Your task to perform on an android device: toggle priority inbox in the gmail app Image 0: 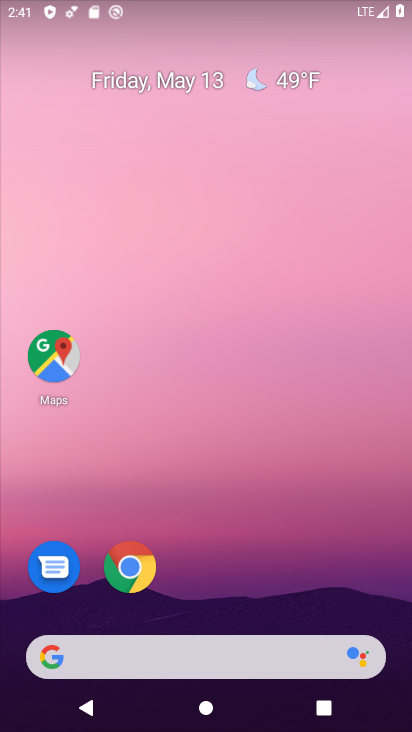
Step 0: drag from (193, 618) to (178, 45)
Your task to perform on an android device: toggle priority inbox in the gmail app Image 1: 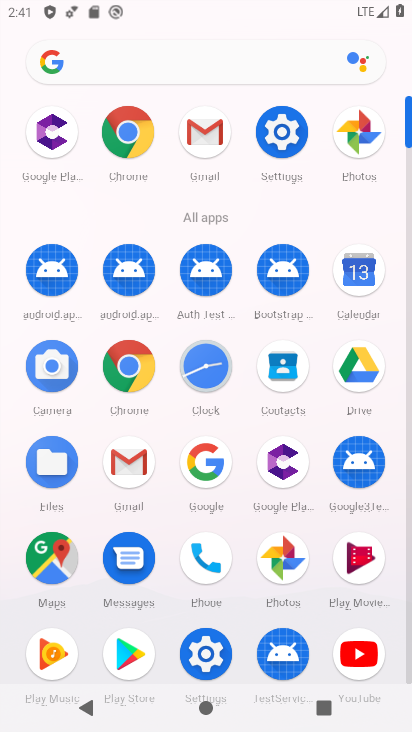
Step 1: click (140, 448)
Your task to perform on an android device: toggle priority inbox in the gmail app Image 2: 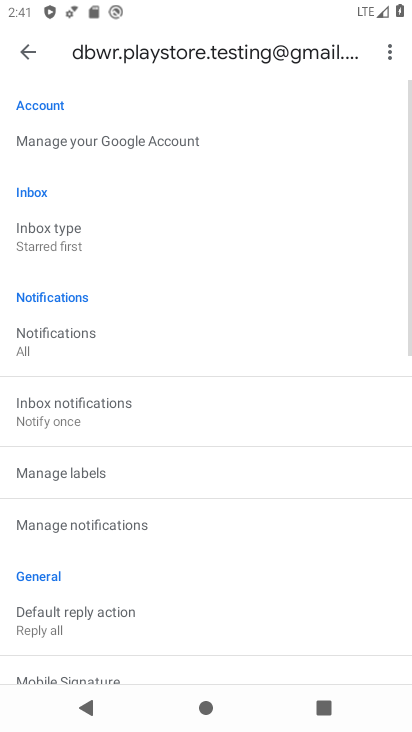
Step 2: click (68, 240)
Your task to perform on an android device: toggle priority inbox in the gmail app Image 3: 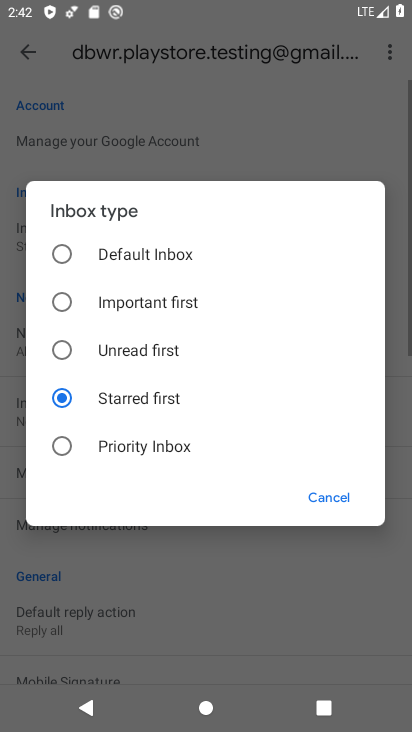
Step 3: click (122, 437)
Your task to perform on an android device: toggle priority inbox in the gmail app Image 4: 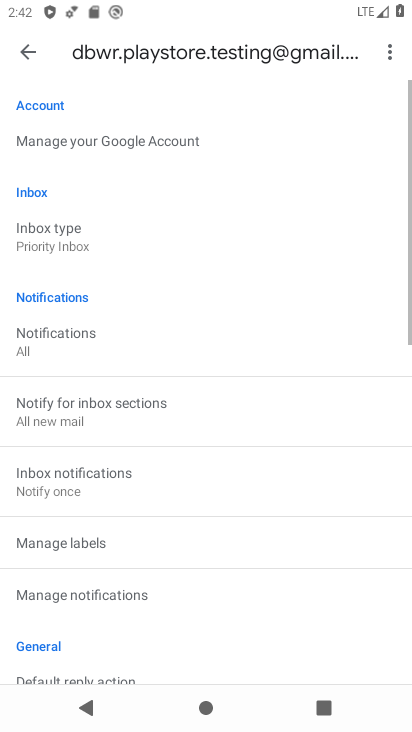
Step 4: task complete